Your task to perform on an android device: turn off smart reply in the gmail app Image 0: 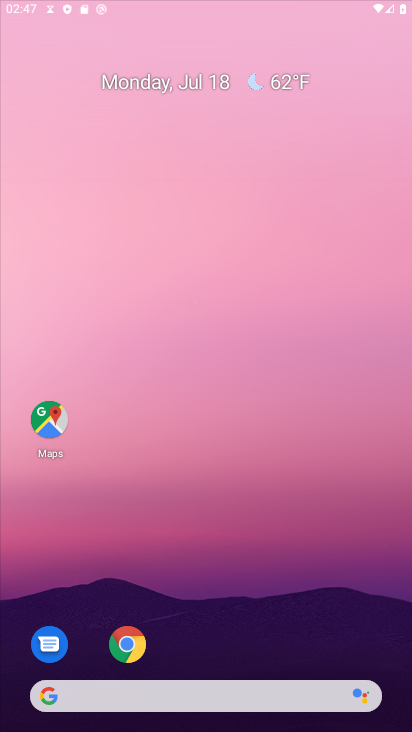
Step 0: drag from (258, 636) to (180, 279)
Your task to perform on an android device: turn off smart reply in the gmail app Image 1: 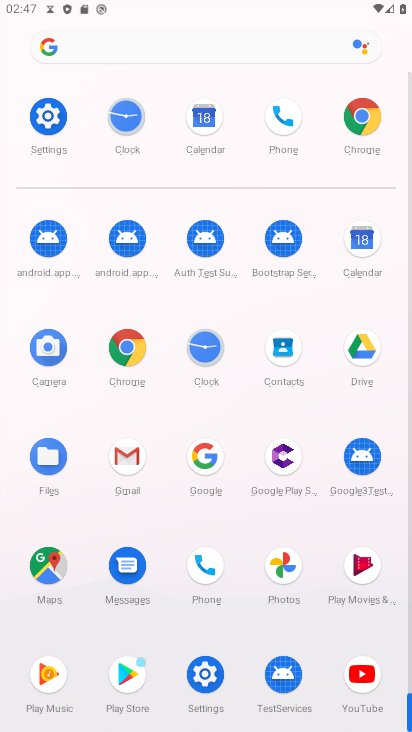
Step 1: click (110, 454)
Your task to perform on an android device: turn off smart reply in the gmail app Image 2: 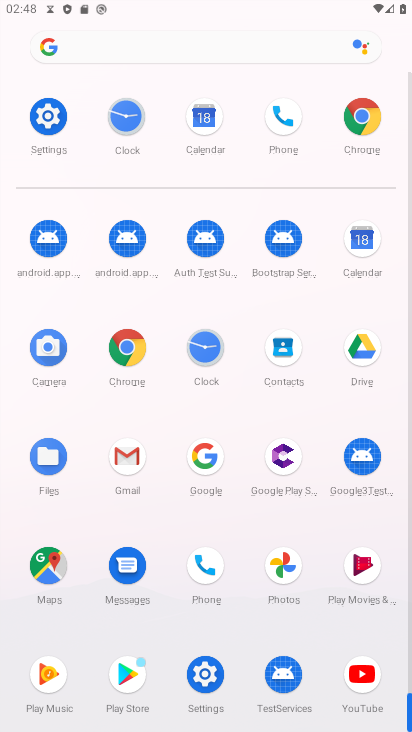
Step 2: click (126, 445)
Your task to perform on an android device: turn off smart reply in the gmail app Image 3: 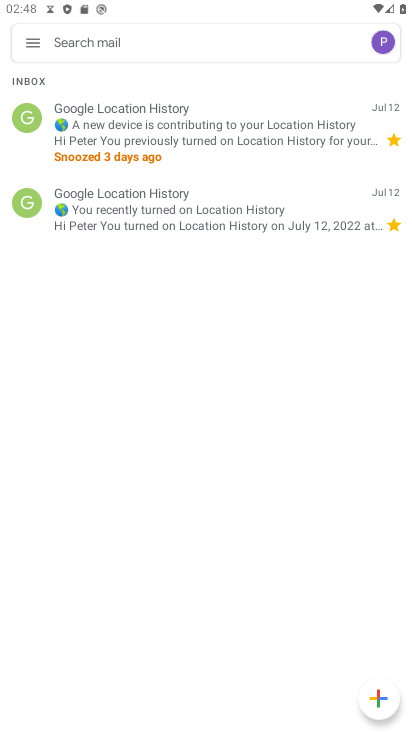
Step 3: click (24, 38)
Your task to perform on an android device: turn off smart reply in the gmail app Image 4: 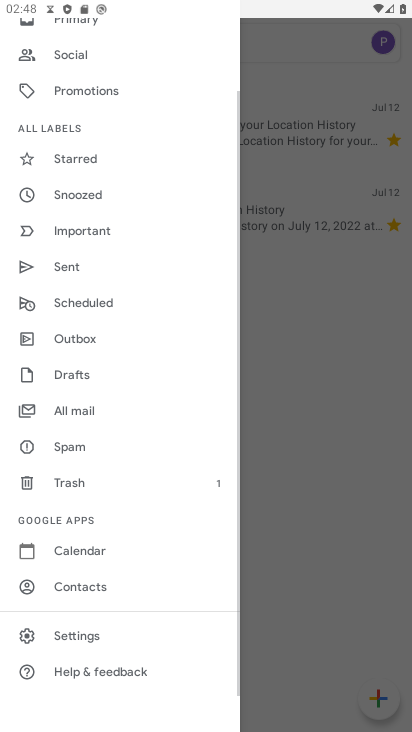
Step 4: drag from (81, 598) to (152, 218)
Your task to perform on an android device: turn off smart reply in the gmail app Image 5: 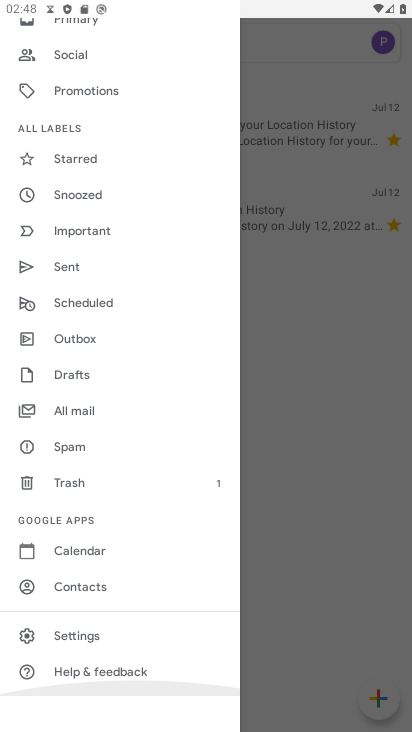
Step 5: drag from (134, 585) to (145, 332)
Your task to perform on an android device: turn off smart reply in the gmail app Image 6: 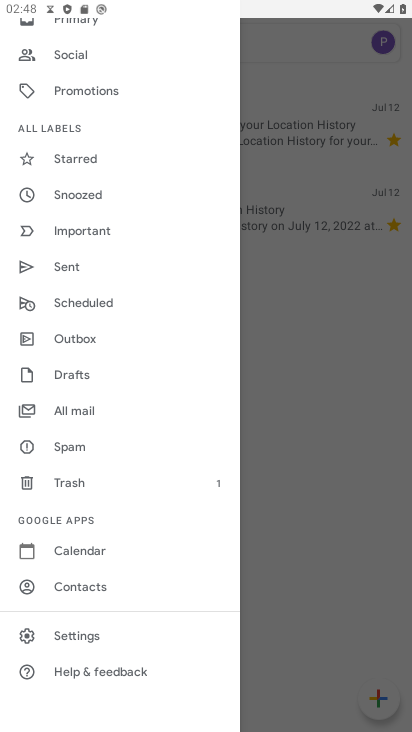
Step 6: click (74, 639)
Your task to perform on an android device: turn off smart reply in the gmail app Image 7: 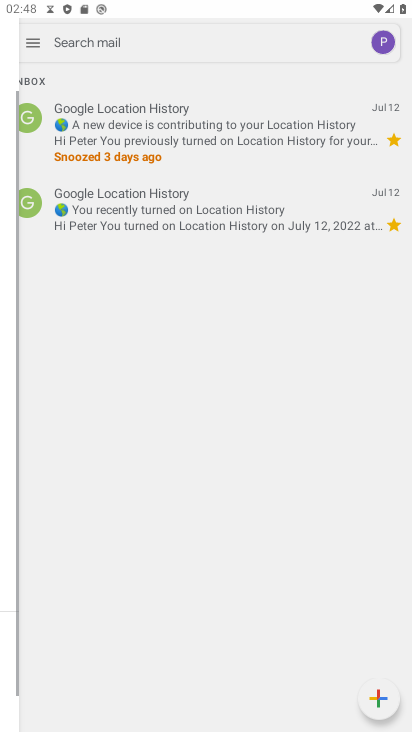
Step 7: click (74, 639)
Your task to perform on an android device: turn off smart reply in the gmail app Image 8: 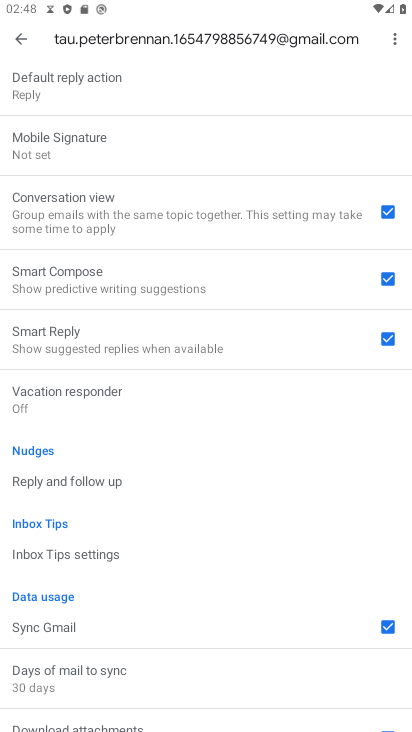
Step 8: drag from (105, 571) to (184, 159)
Your task to perform on an android device: turn off smart reply in the gmail app Image 9: 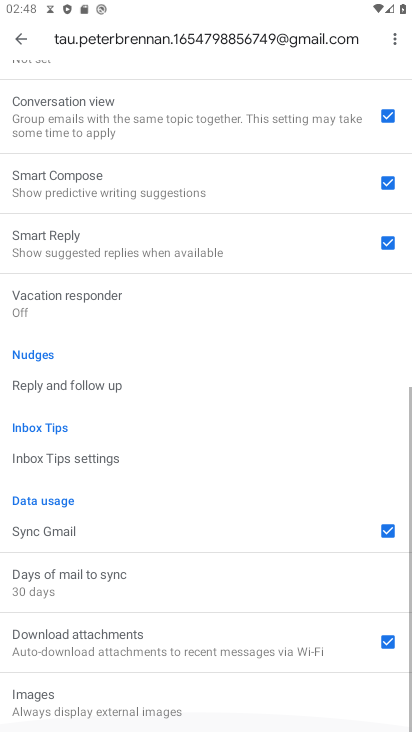
Step 9: drag from (94, 462) to (93, 214)
Your task to perform on an android device: turn off smart reply in the gmail app Image 10: 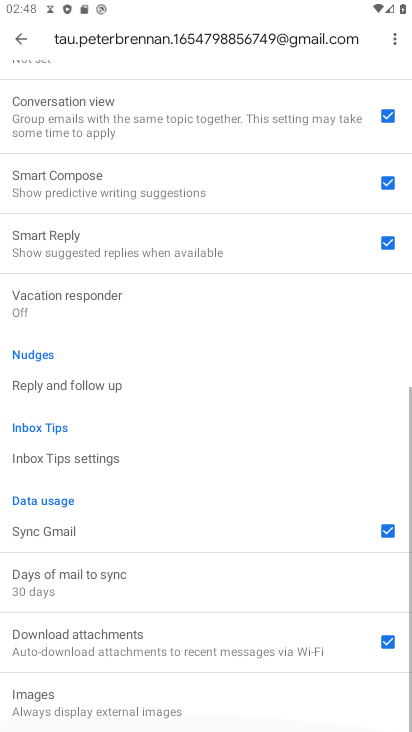
Step 10: drag from (38, 544) to (78, 235)
Your task to perform on an android device: turn off smart reply in the gmail app Image 11: 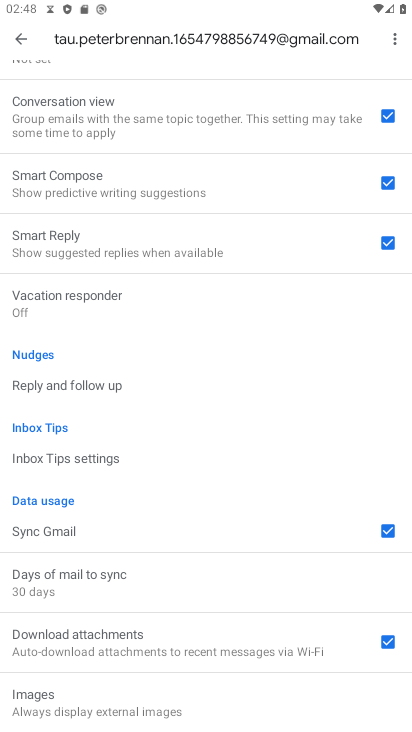
Step 11: drag from (111, 517) to (102, 253)
Your task to perform on an android device: turn off smart reply in the gmail app Image 12: 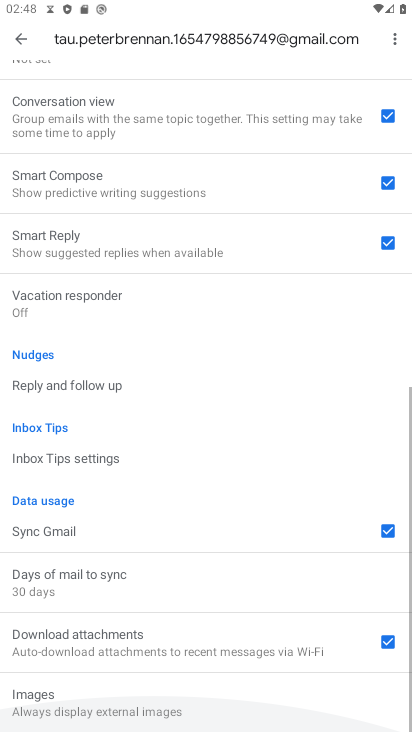
Step 12: click (102, 294)
Your task to perform on an android device: turn off smart reply in the gmail app Image 13: 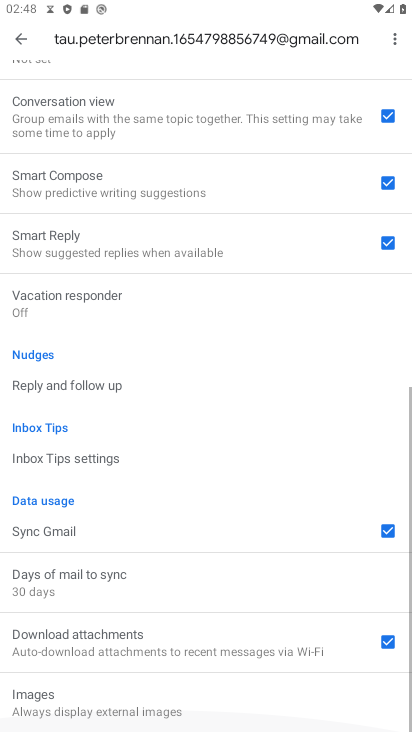
Step 13: drag from (106, 511) to (106, 263)
Your task to perform on an android device: turn off smart reply in the gmail app Image 14: 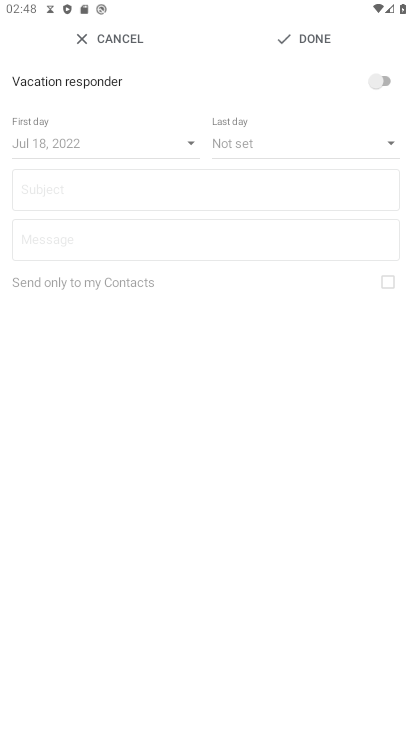
Step 14: press back button
Your task to perform on an android device: turn off smart reply in the gmail app Image 15: 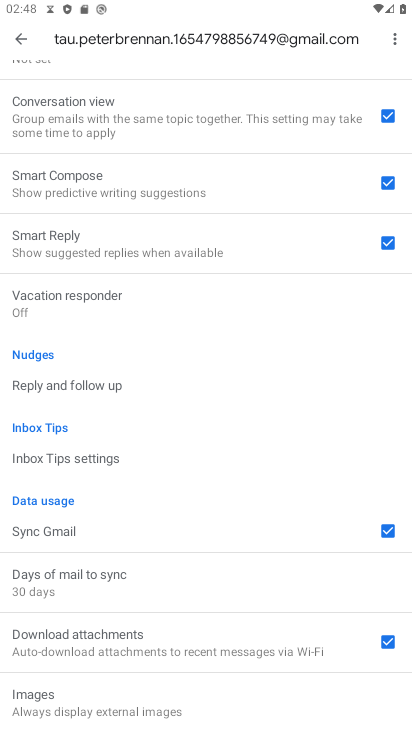
Step 15: click (172, 250)
Your task to perform on an android device: turn off smart reply in the gmail app Image 16: 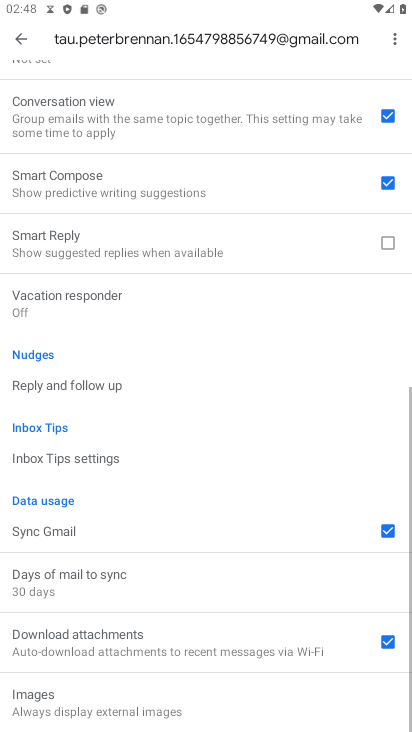
Step 16: task complete